Your task to perform on an android device: Go to ESPN.com Image 0: 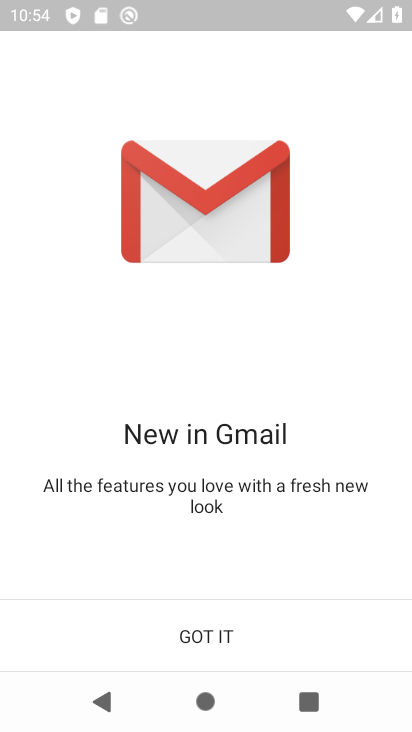
Step 0: click (370, 630)
Your task to perform on an android device: Go to ESPN.com Image 1: 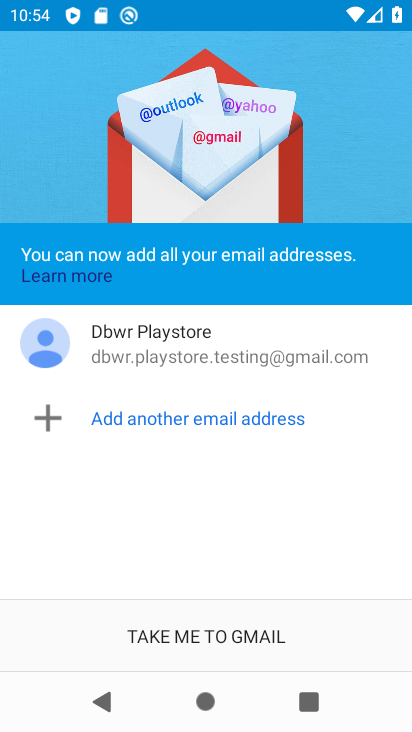
Step 1: click (370, 632)
Your task to perform on an android device: Go to ESPN.com Image 2: 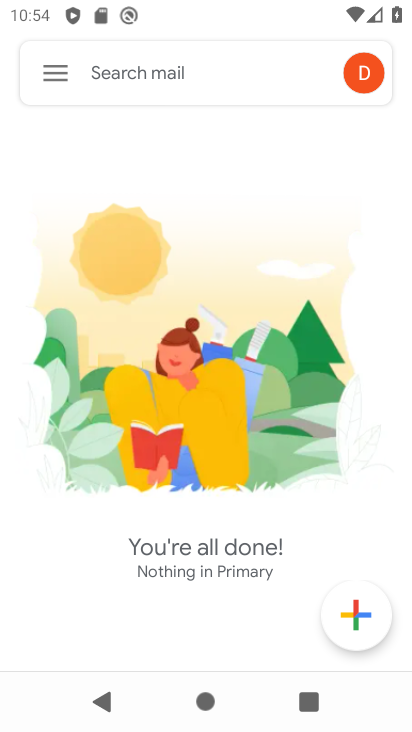
Step 2: press home button
Your task to perform on an android device: Go to ESPN.com Image 3: 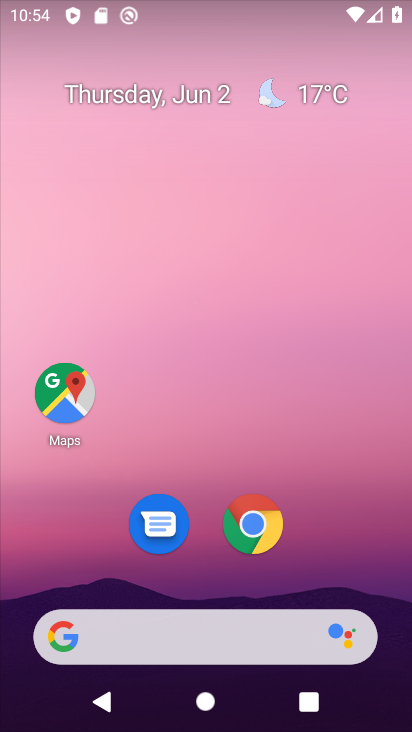
Step 3: click (252, 651)
Your task to perform on an android device: Go to ESPN.com Image 4: 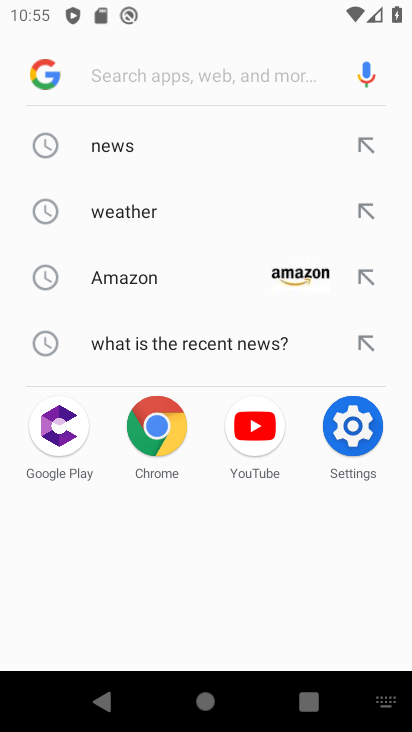
Step 4: type "espn.com"
Your task to perform on an android device: Go to ESPN.com Image 5: 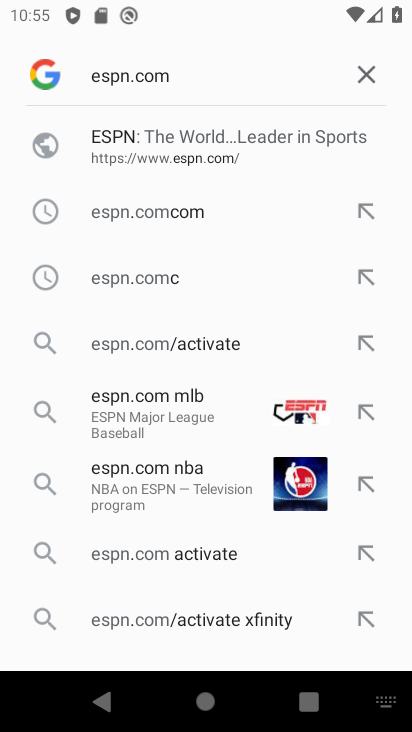
Step 5: click (121, 155)
Your task to perform on an android device: Go to ESPN.com Image 6: 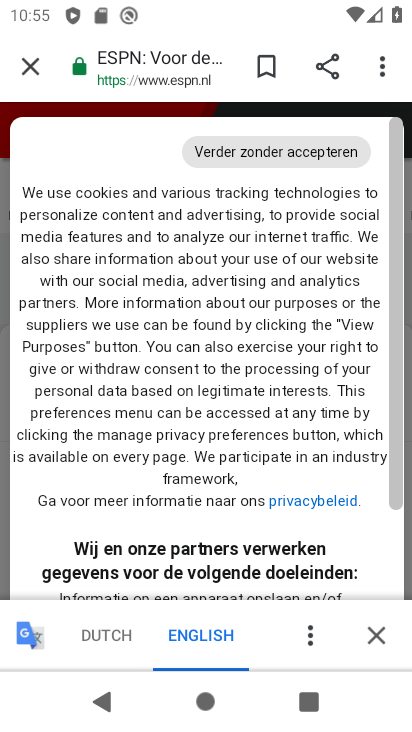
Step 6: task complete